Your task to perform on an android device: Open Google Image 0: 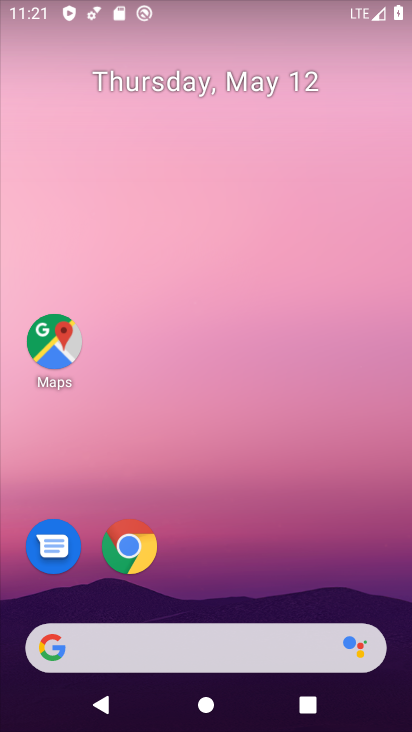
Step 0: click (48, 645)
Your task to perform on an android device: Open Google Image 1: 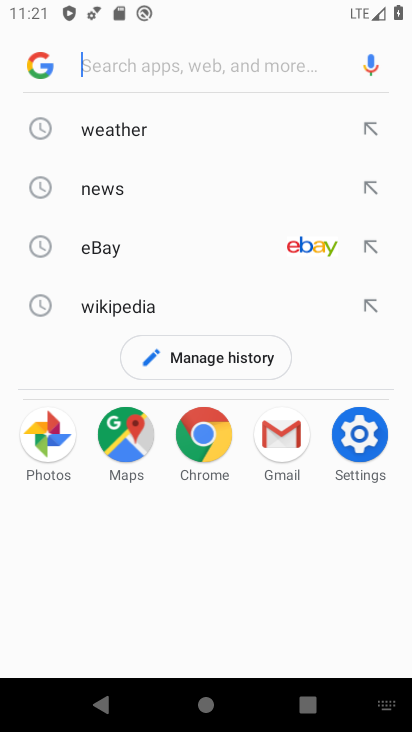
Step 1: task complete